Your task to perform on an android device: check google app version Image 0: 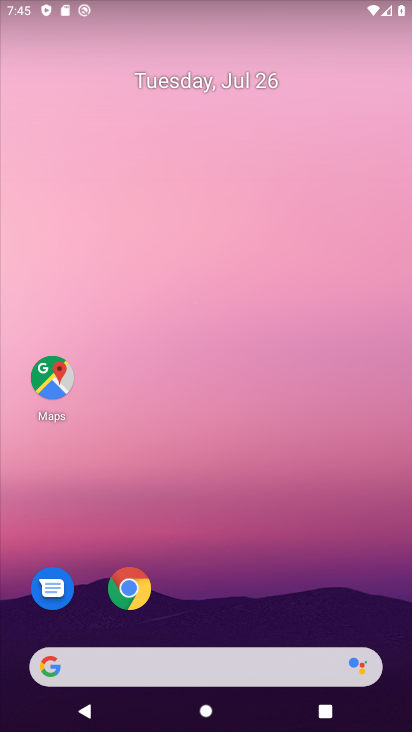
Step 0: drag from (289, 614) to (321, 144)
Your task to perform on an android device: check google app version Image 1: 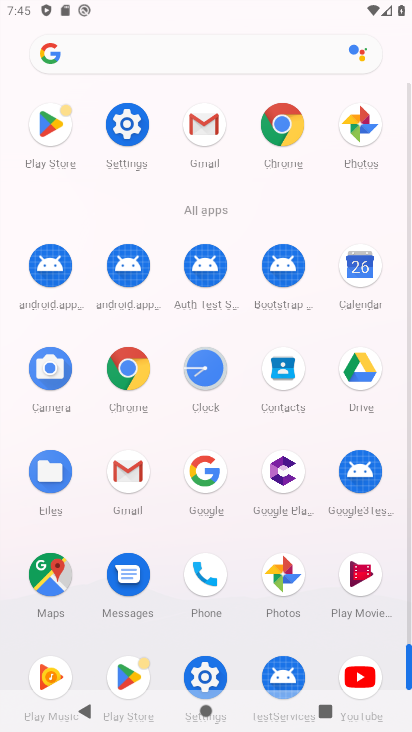
Step 1: click (205, 671)
Your task to perform on an android device: check google app version Image 2: 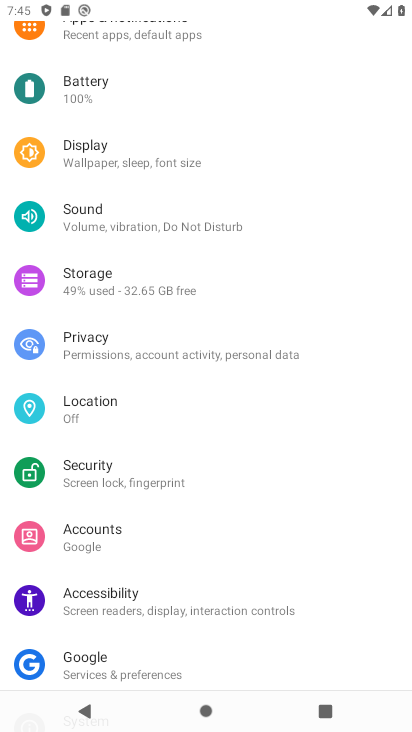
Step 2: drag from (222, 631) to (317, 165)
Your task to perform on an android device: check google app version Image 3: 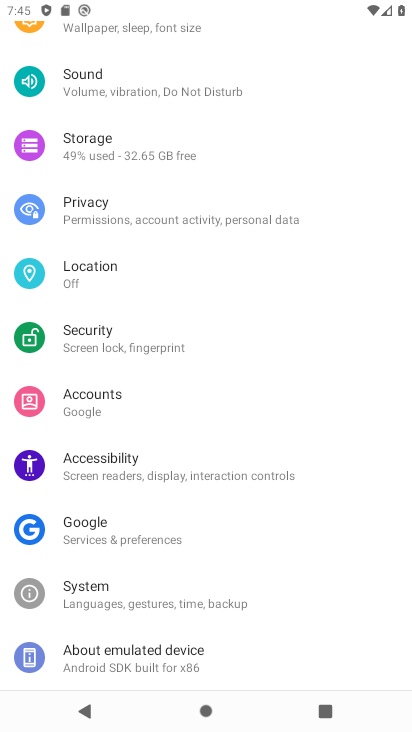
Step 3: click (147, 662)
Your task to perform on an android device: check google app version Image 4: 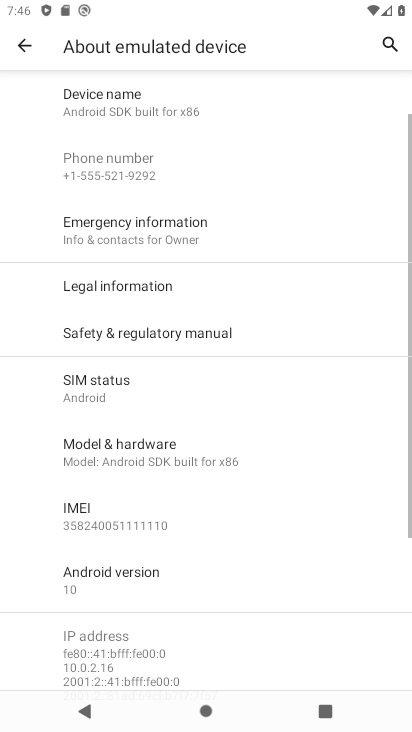
Step 4: drag from (327, 638) to (346, 214)
Your task to perform on an android device: check google app version Image 5: 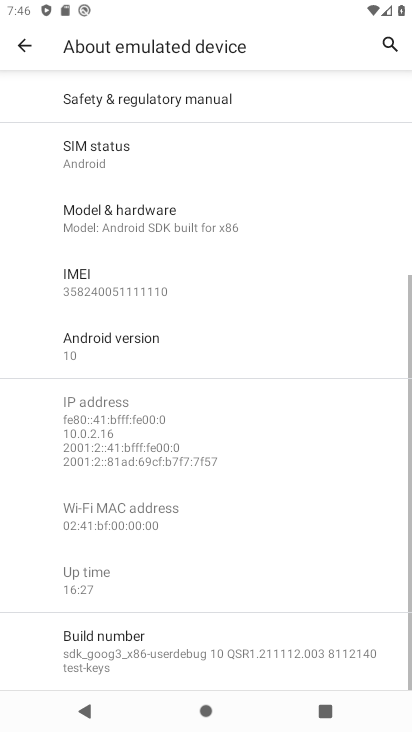
Step 5: drag from (339, 225) to (312, 179)
Your task to perform on an android device: check google app version Image 6: 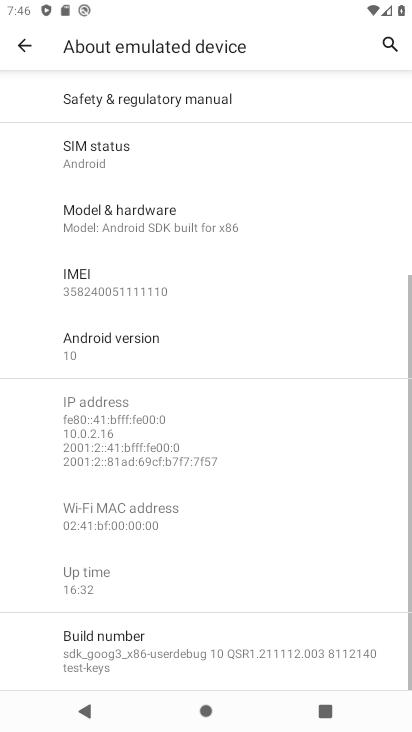
Step 6: click (152, 354)
Your task to perform on an android device: check google app version Image 7: 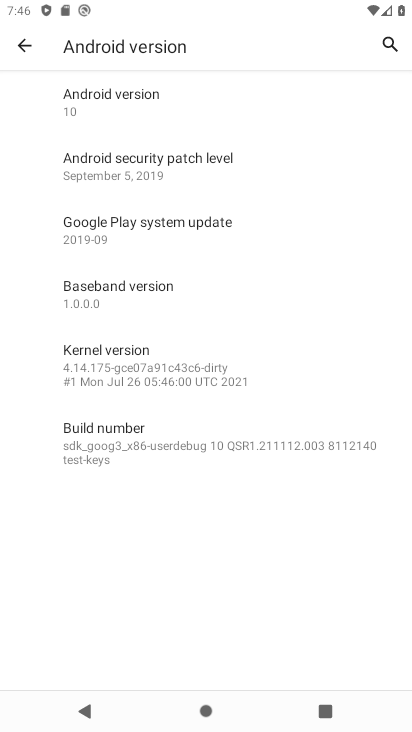
Step 7: task complete